Your task to perform on an android device: toggle notification dots Image 0: 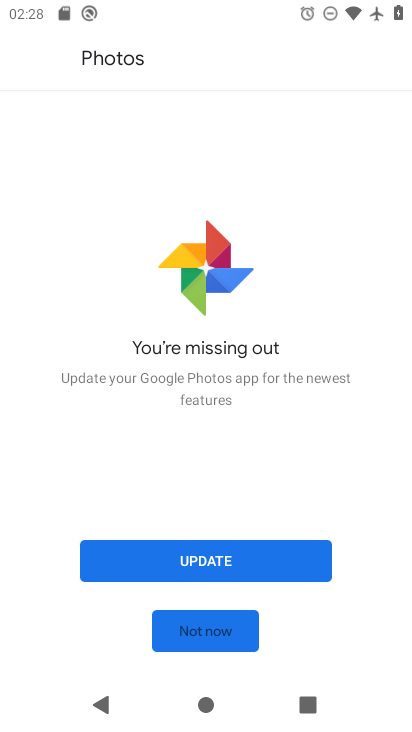
Step 0: press home button
Your task to perform on an android device: toggle notification dots Image 1: 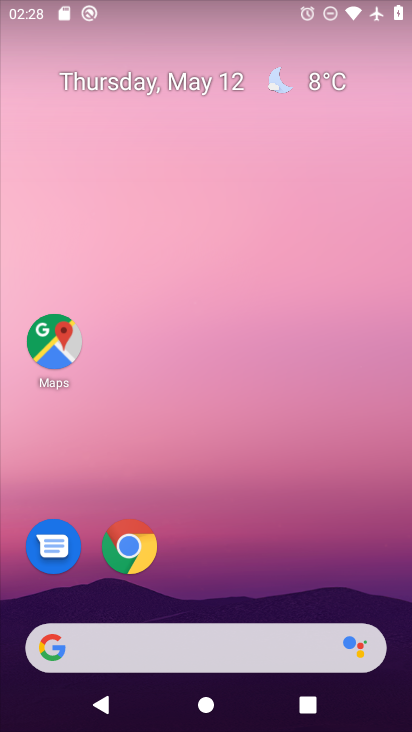
Step 1: drag from (144, 659) to (259, 336)
Your task to perform on an android device: toggle notification dots Image 2: 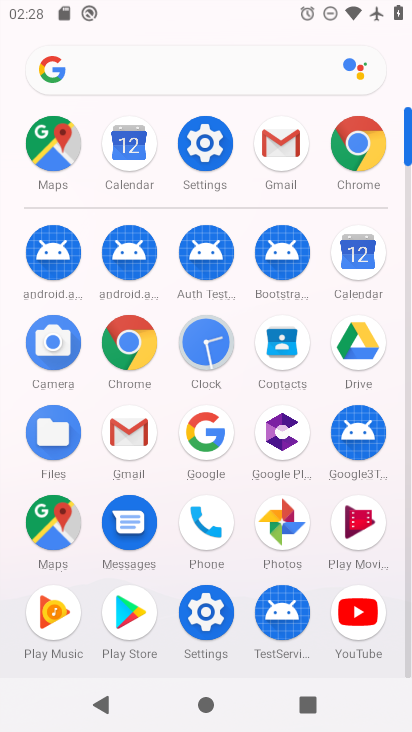
Step 2: click (202, 150)
Your task to perform on an android device: toggle notification dots Image 3: 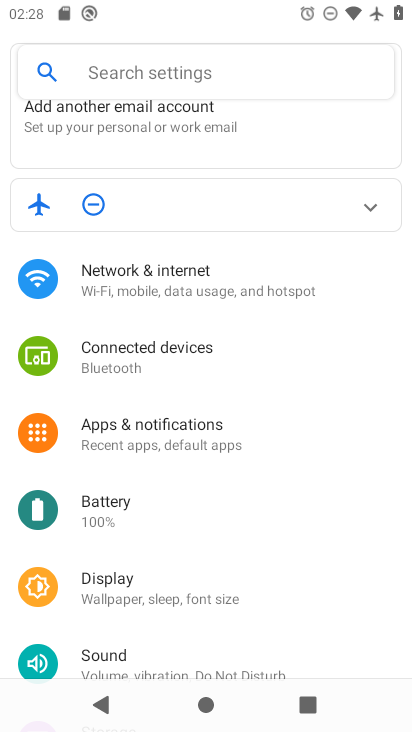
Step 3: click (163, 428)
Your task to perform on an android device: toggle notification dots Image 4: 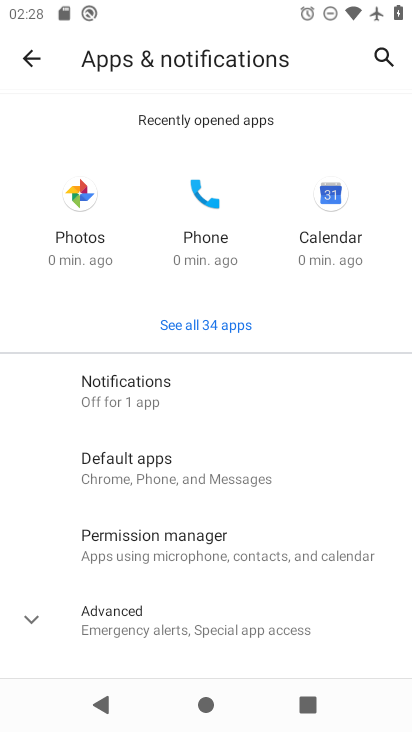
Step 4: click (151, 396)
Your task to perform on an android device: toggle notification dots Image 5: 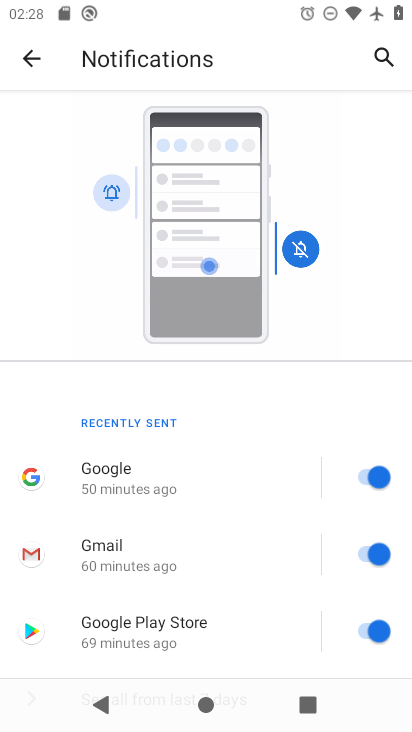
Step 5: drag from (199, 592) to (358, 163)
Your task to perform on an android device: toggle notification dots Image 6: 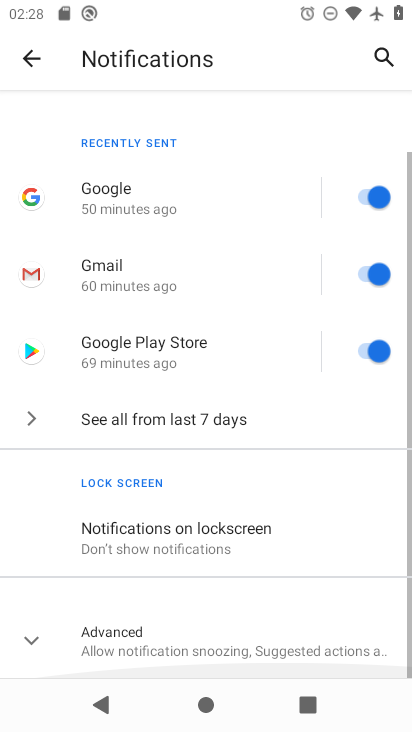
Step 6: click (130, 643)
Your task to perform on an android device: toggle notification dots Image 7: 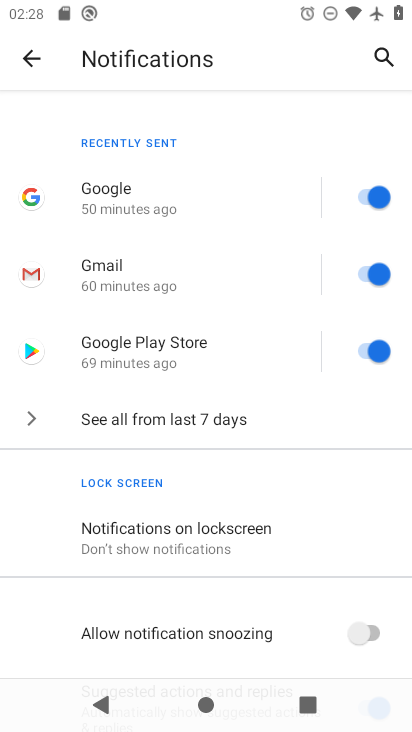
Step 7: drag from (221, 608) to (293, 258)
Your task to perform on an android device: toggle notification dots Image 8: 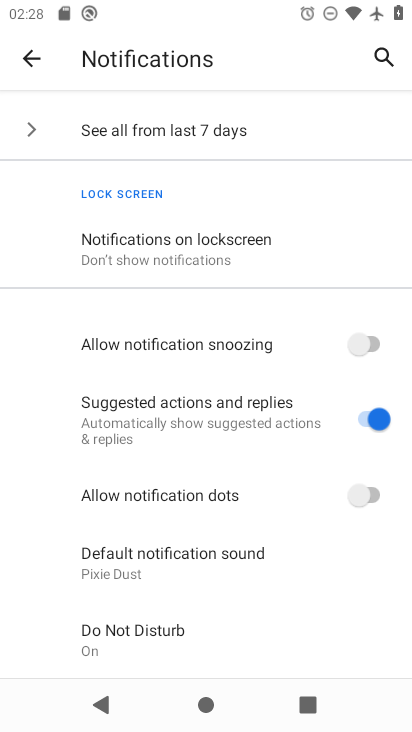
Step 8: click (372, 492)
Your task to perform on an android device: toggle notification dots Image 9: 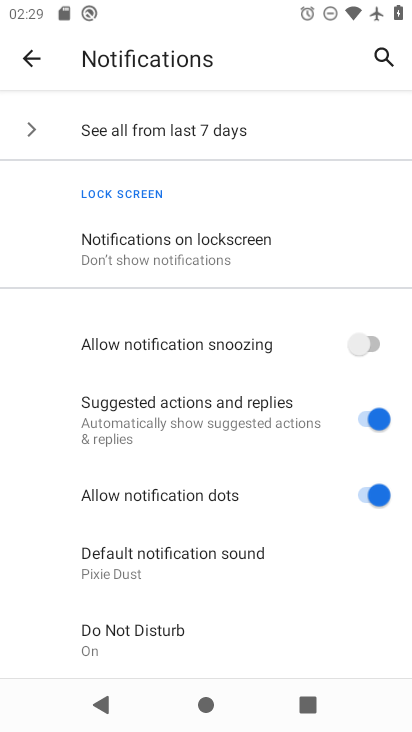
Step 9: task complete